Your task to perform on an android device: Search for good Korean restaurants Image 0: 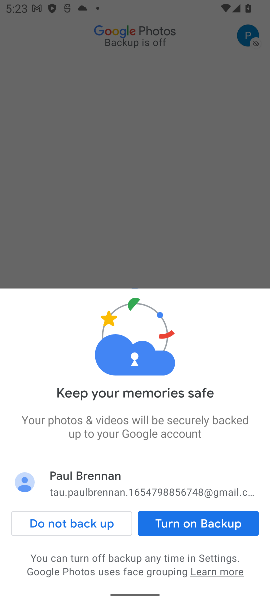
Step 0: press home button
Your task to perform on an android device: Search for good Korean restaurants Image 1: 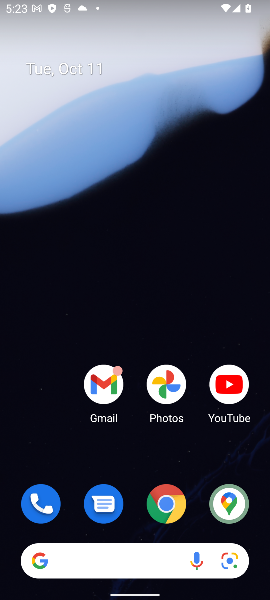
Step 1: click (92, 545)
Your task to perform on an android device: Search for good Korean restaurants Image 2: 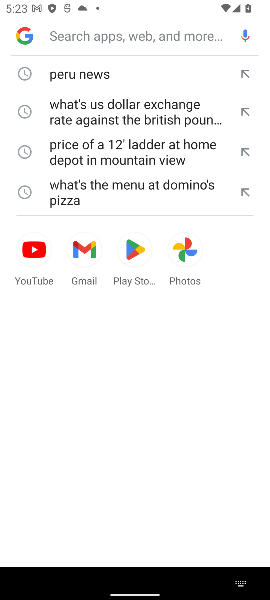
Step 2: click (96, 47)
Your task to perform on an android device: Search for good Korean restaurants Image 3: 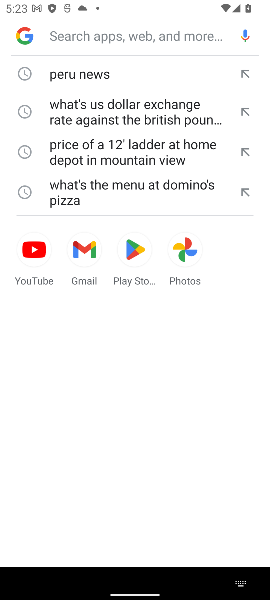
Step 3: type "good Korean restaurants"
Your task to perform on an android device: Search for good Korean restaurants Image 4: 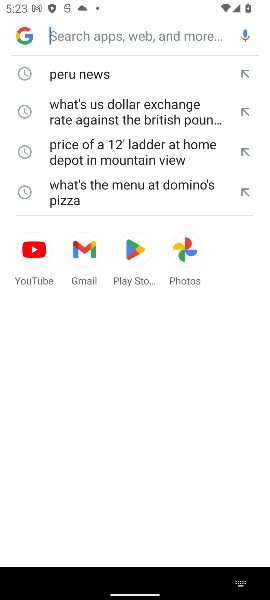
Step 4: click (197, 482)
Your task to perform on an android device: Search for good Korean restaurants Image 5: 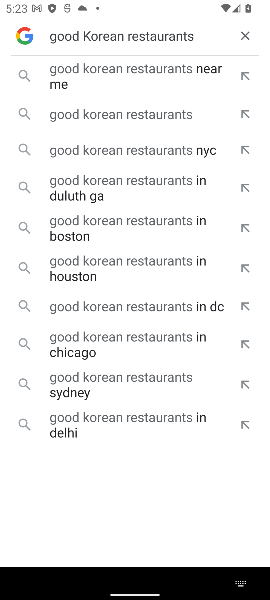
Step 5: click (159, 80)
Your task to perform on an android device: Search for good Korean restaurants Image 6: 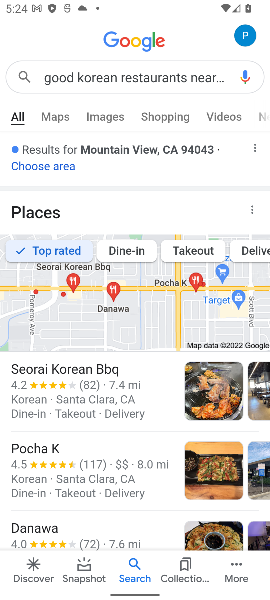
Step 6: task complete